Your task to perform on an android device: Go to Google maps Image 0: 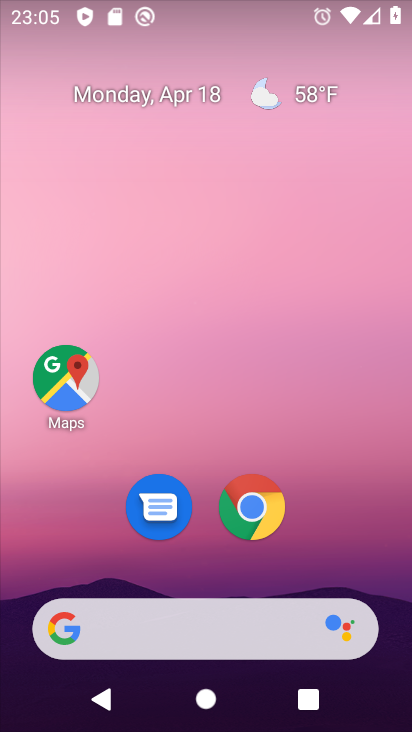
Step 0: click (52, 386)
Your task to perform on an android device: Go to Google maps Image 1: 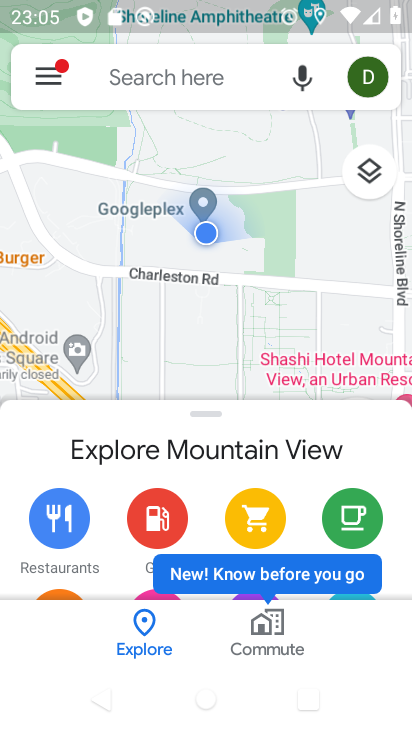
Step 1: task complete